Your task to perform on an android device: toggle show notifications on the lock screen Image 0: 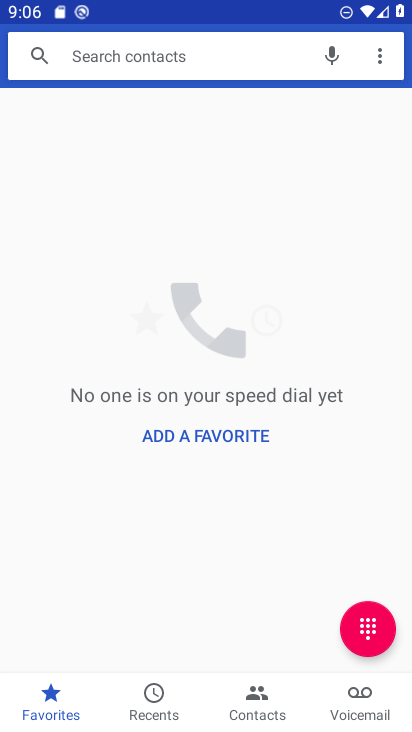
Step 0: press back button
Your task to perform on an android device: toggle show notifications on the lock screen Image 1: 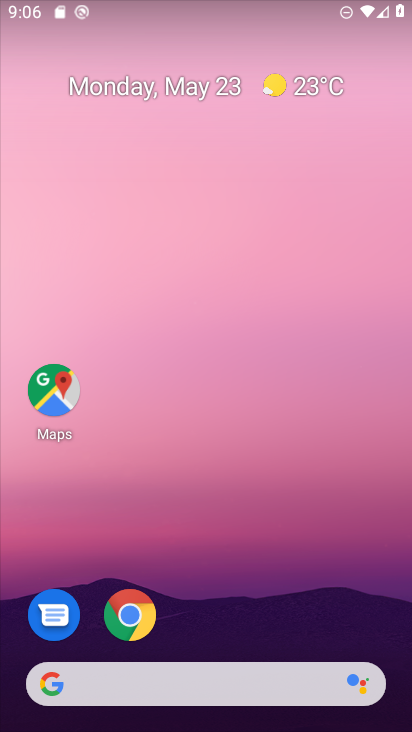
Step 1: drag from (258, 597) to (150, 118)
Your task to perform on an android device: toggle show notifications on the lock screen Image 2: 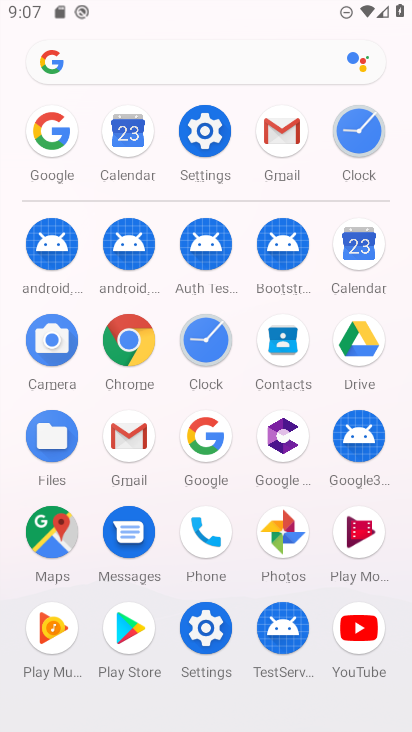
Step 2: click (205, 133)
Your task to perform on an android device: toggle show notifications on the lock screen Image 3: 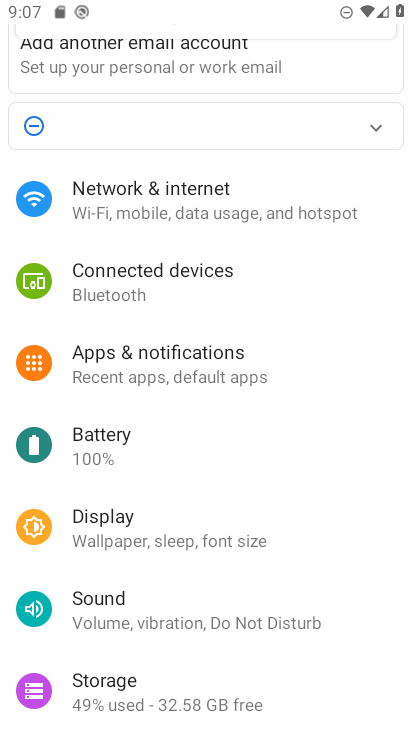
Step 3: click (191, 355)
Your task to perform on an android device: toggle show notifications on the lock screen Image 4: 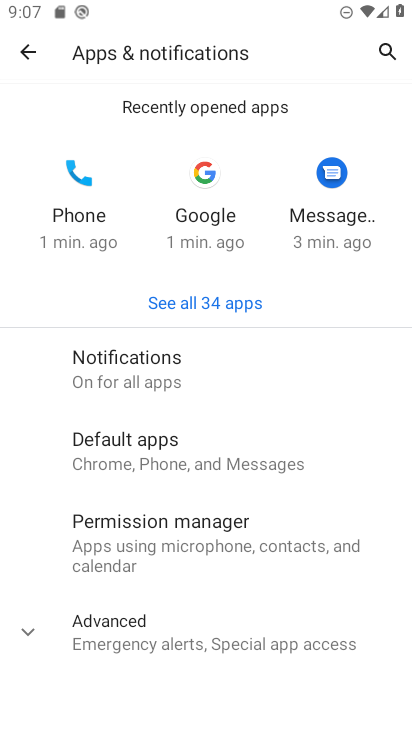
Step 4: click (146, 366)
Your task to perform on an android device: toggle show notifications on the lock screen Image 5: 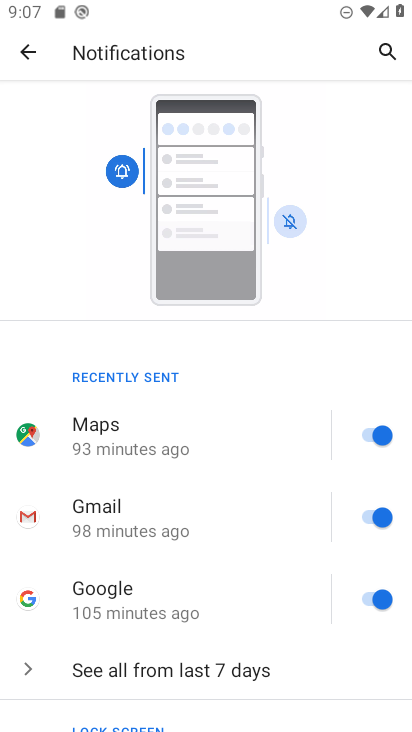
Step 5: drag from (197, 564) to (224, 424)
Your task to perform on an android device: toggle show notifications on the lock screen Image 6: 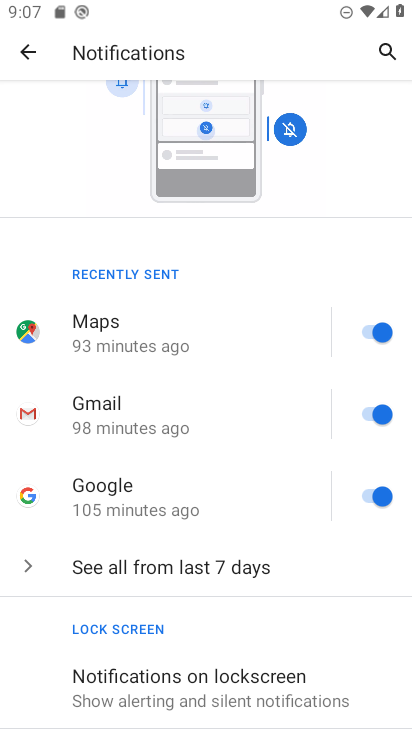
Step 6: drag from (195, 617) to (244, 527)
Your task to perform on an android device: toggle show notifications on the lock screen Image 7: 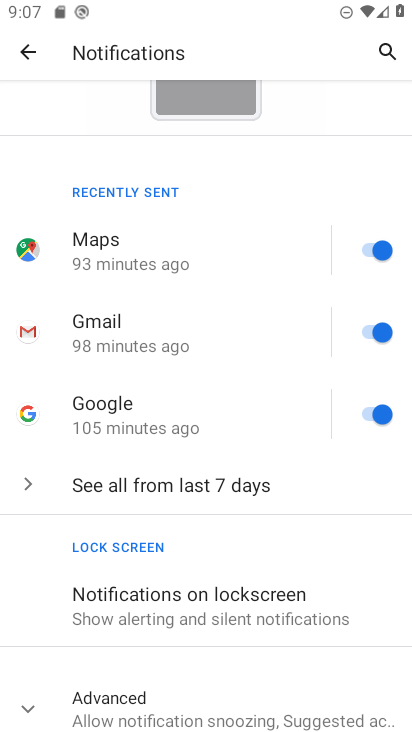
Step 7: drag from (188, 672) to (221, 588)
Your task to perform on an android device: toggle show notifications on the lock screen Image 8: 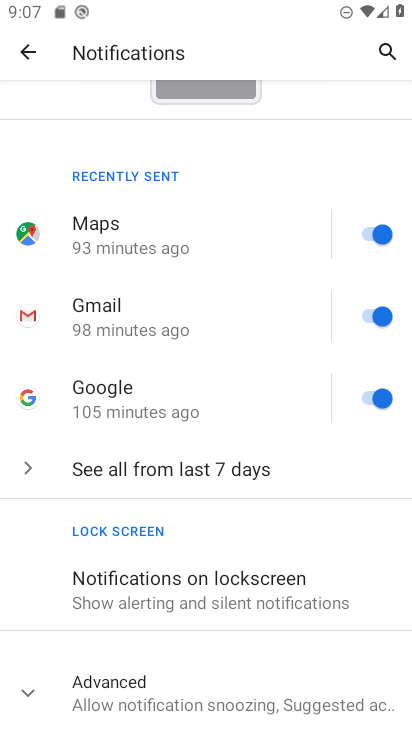
Step 8: click (217, 589)
Your task to perform on an android device: toggle show notifications on the lock screen Image 9: 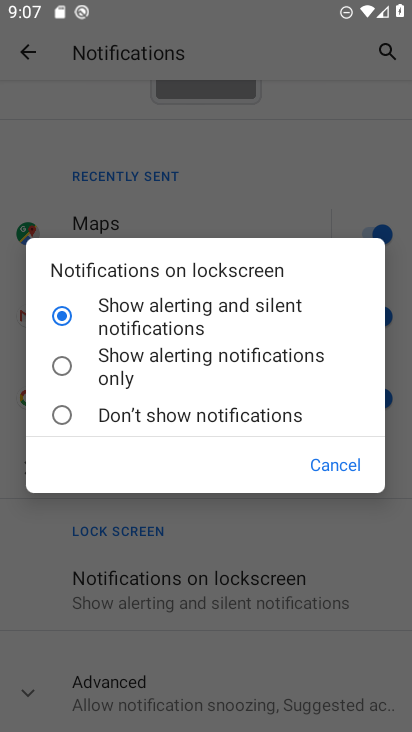
Step 9: click (70, 412)
Your task to perform on an android device: toggle show notifications on the lock screen Image 10: 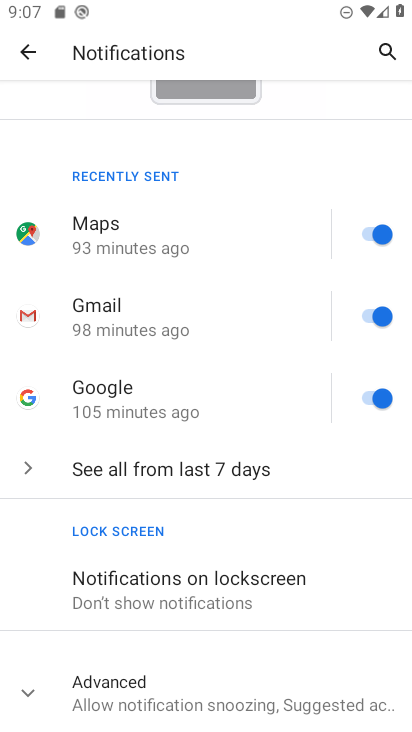
Step 10: task complete